Your task to perform on an android device: check battery use Image 0: 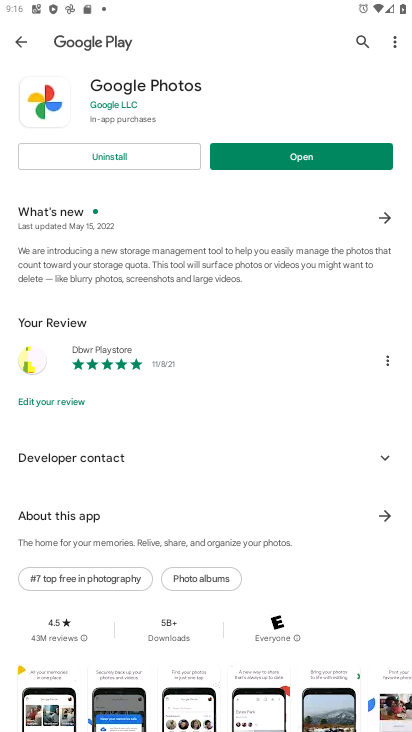
Step 0: press home button
Your task to perform on an android device: check battery use Image 1: 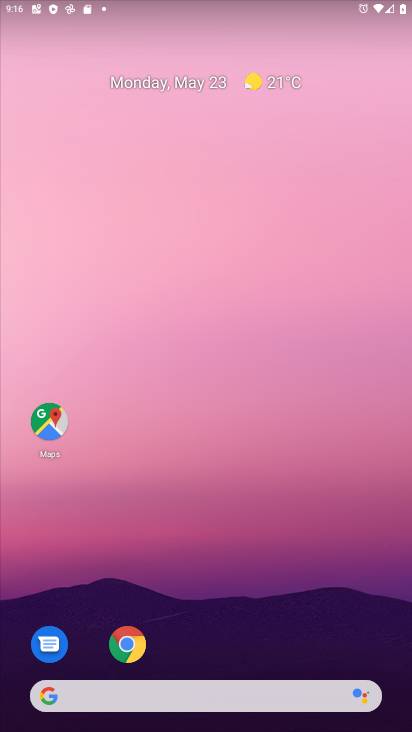
Step 1: drag from (150, 709) to (265, 89)
Your task to perform on an android device: check battery use Image 2: 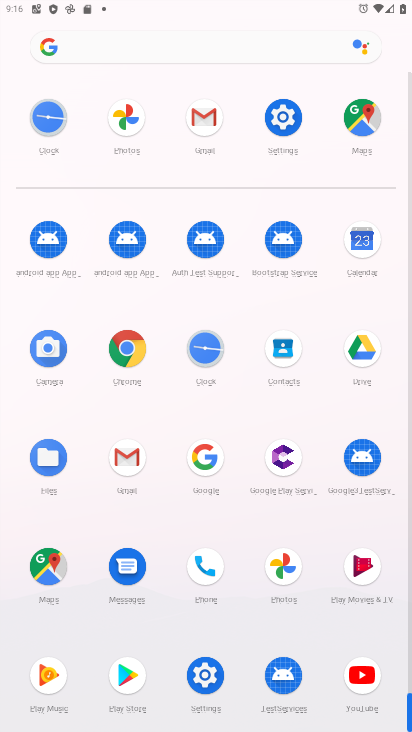
Step 2: click (292, 129)
Your task to perform on an android device: check battery use Image 3: 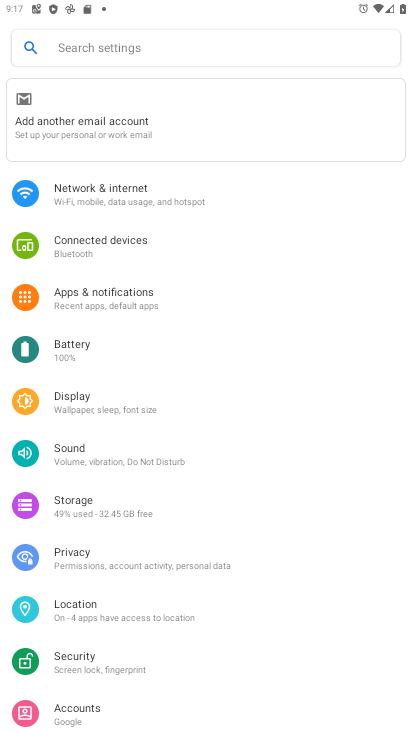
Step 3: click (80, 339)
Your task to perform on an android device: check battery use Image 4: 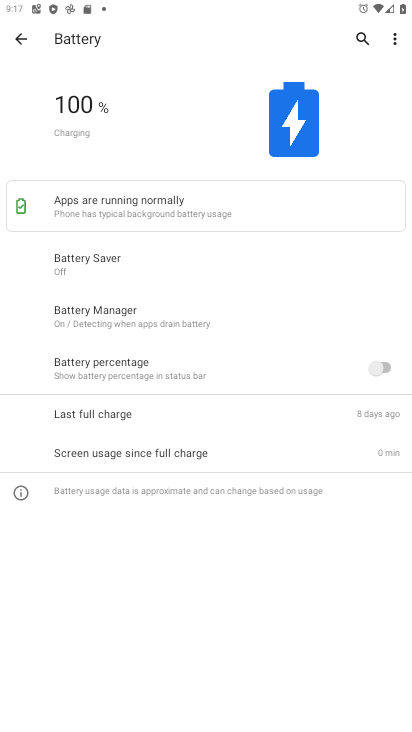
Step 4: click (392, 39)
Your task to perform on an android device: check battery use Image 5: 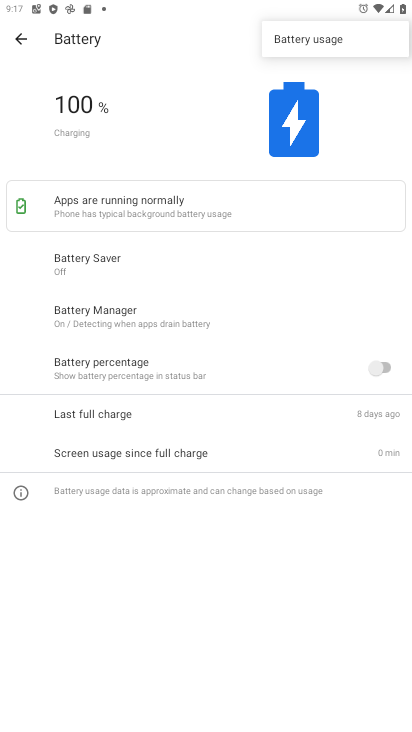
Step 5: click (328, 35)
Your task to perform on an android device: check battery use Image 6: 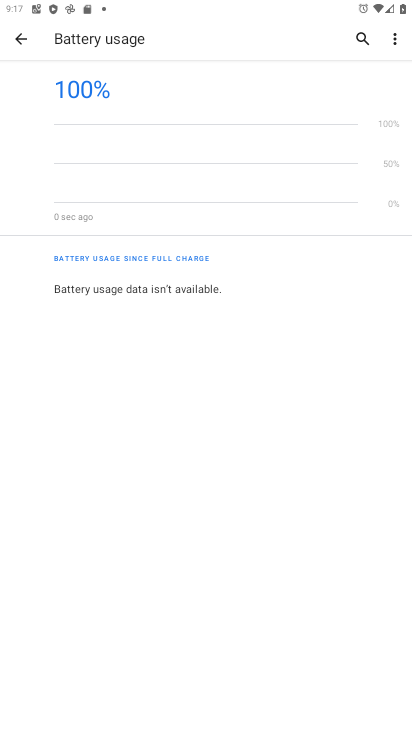
Step 6: task complete